Your task to perform on an android device: See recent photos Image 0: 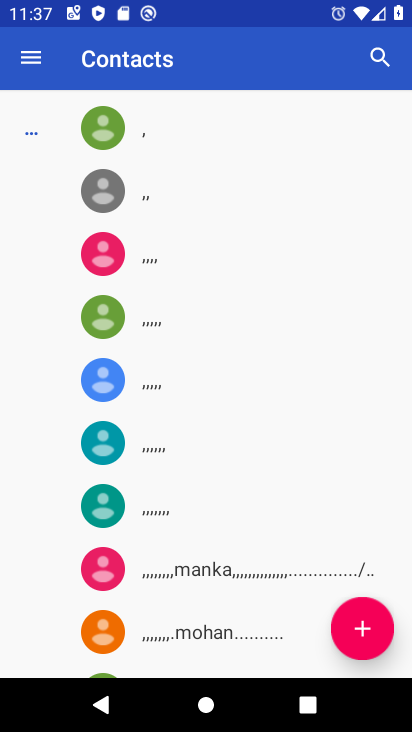
Step 0: press home button
Your task to perform on an android device: See recent photos Image 1: 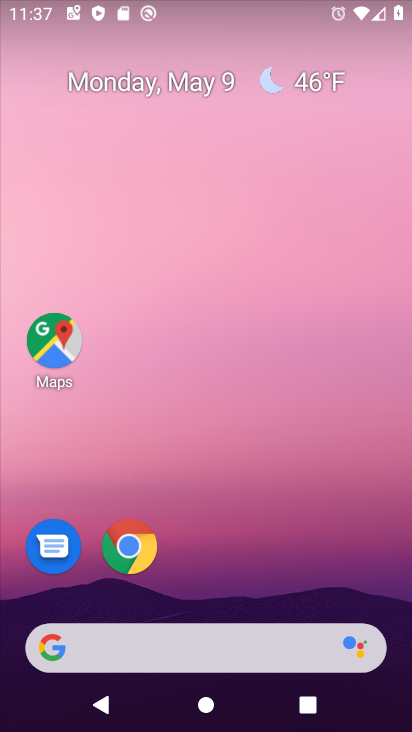
Step 1: drag from (311, 593) to (304, 27)
Your task to perform on an android device: See recent photos Image 2: 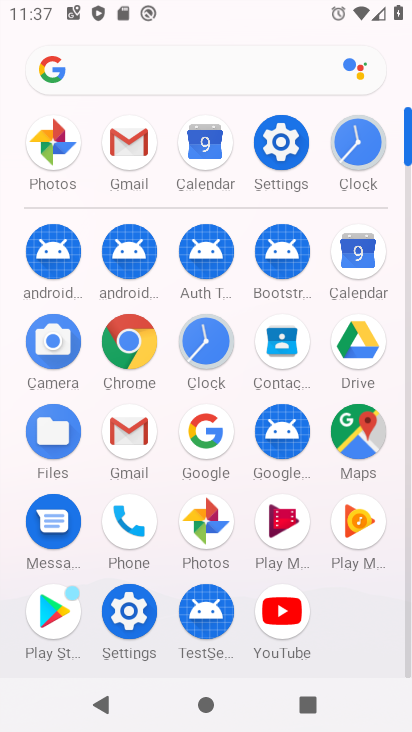
Step 2: click (205, 524)
Your task to perform on an android device: See recent photos Image 3: 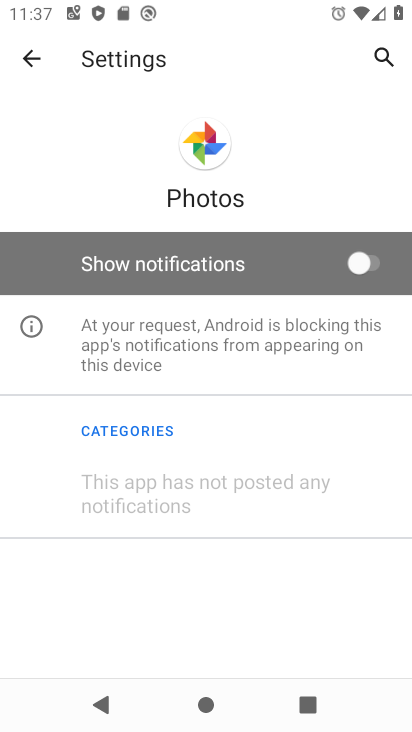
Step 3: click (36, 61)
Your task to perform on an android device: See recent photos Image 4: 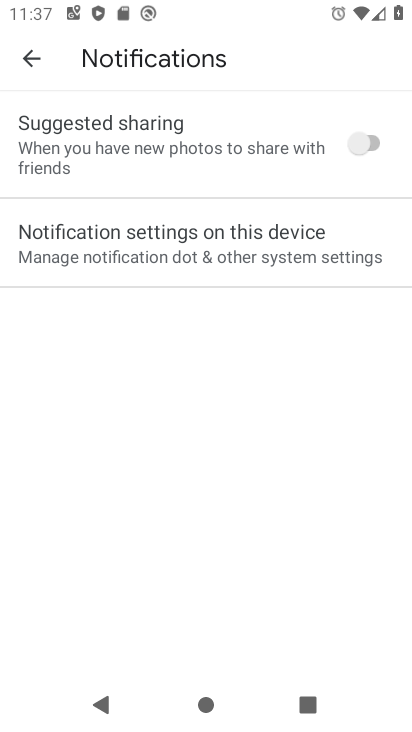
Step 4: click (28, 62)
Your task to perform on an android device: See recent photos Image 5: 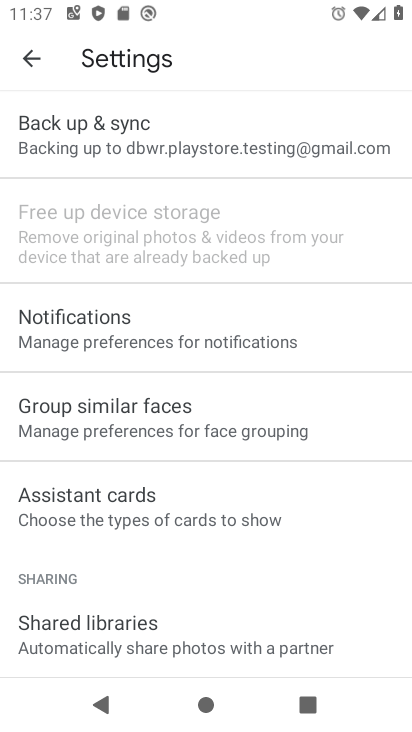
Step 5: click (28, 61)
Your task to perform on an android device: See recent photos Image 6: 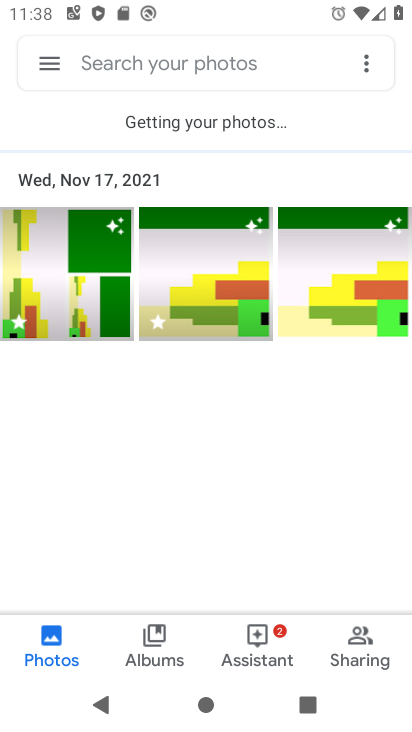
Step 6: drag from (278, 500) to (274, 372)
Your task to perform on an android device: See recent photos Image 7: 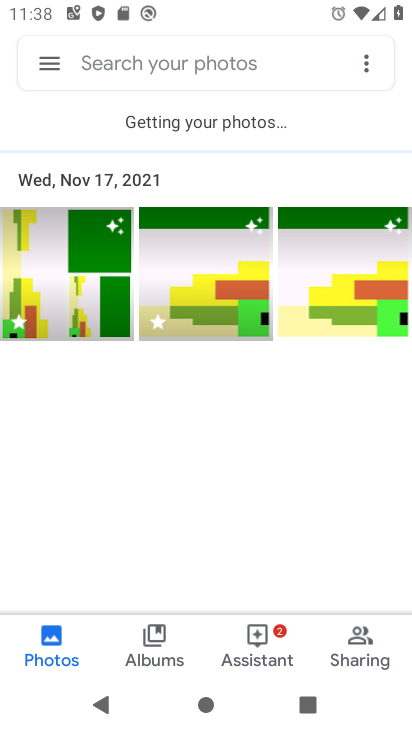
Step 7: click (62, 65)
Your task to perform on an android device: See recent photos Image 8: 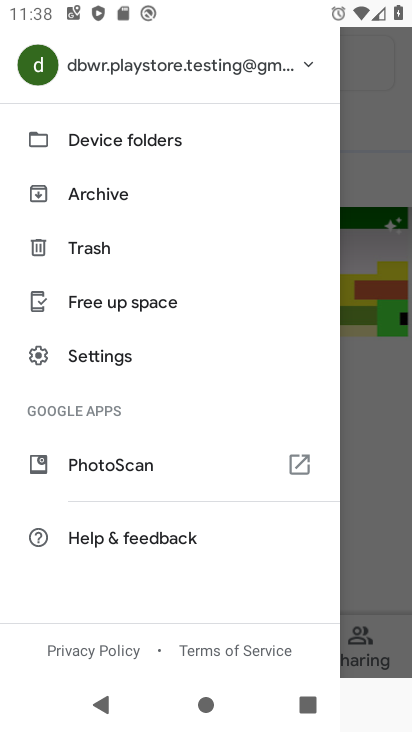
Step 8: drag from (159, 353) to (164, 485)
Your task to perform on an android device: See recent photos Image 9: 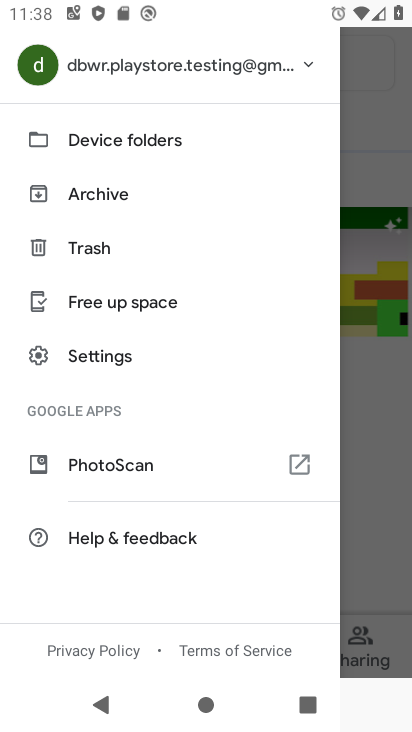
Step 9: click (381, 415)
Your task to perform on an android device: See recent photos Image 10: 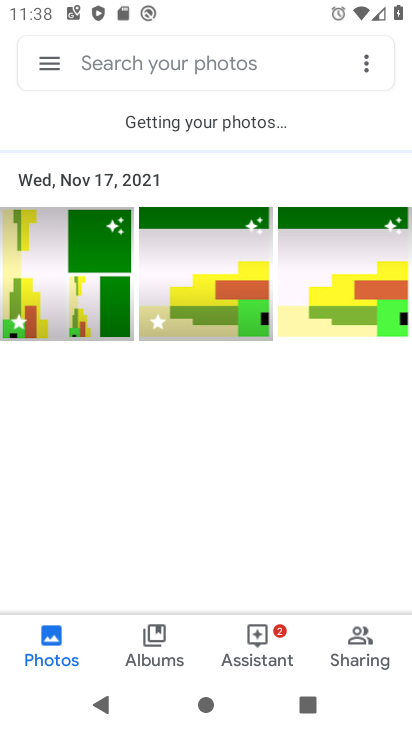
Step 10: task complete